Your task to perform on an android device: open chrome privacy settings Image 0: 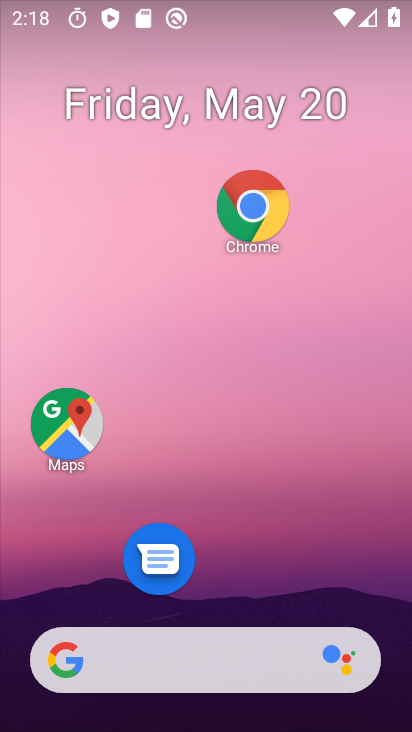
Step 0: click (267, 219)
Your task to perform on an android device: open chrome privacy settings Image 1: 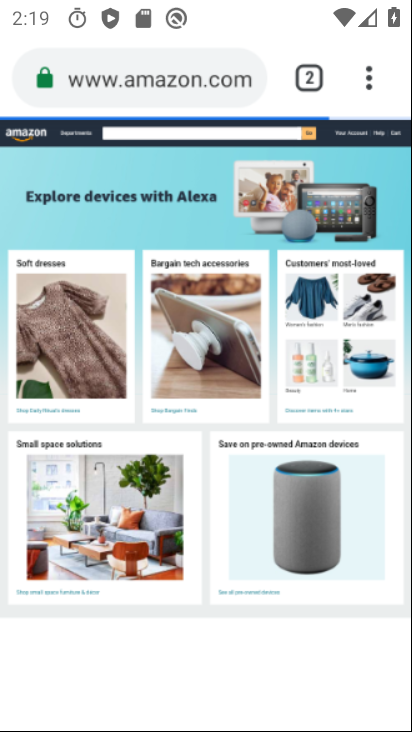
Step 1: click (367, 87)
Your task to perform on an android device: open chrome privacy settings Image 2: 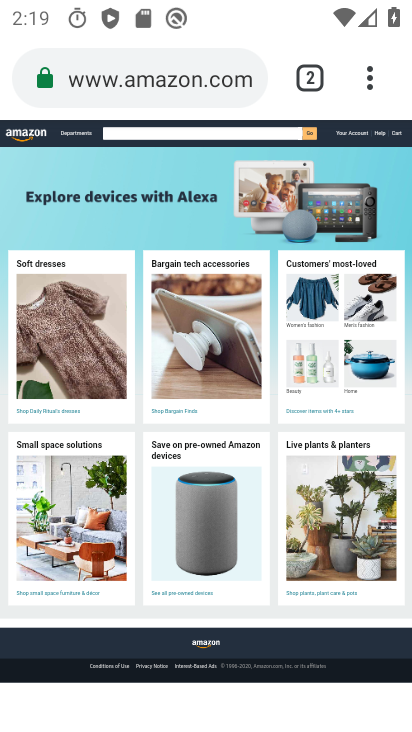
Step 2: click (367, 87)
Your task to perform on an android device: open chrome privacy settings Image 3: 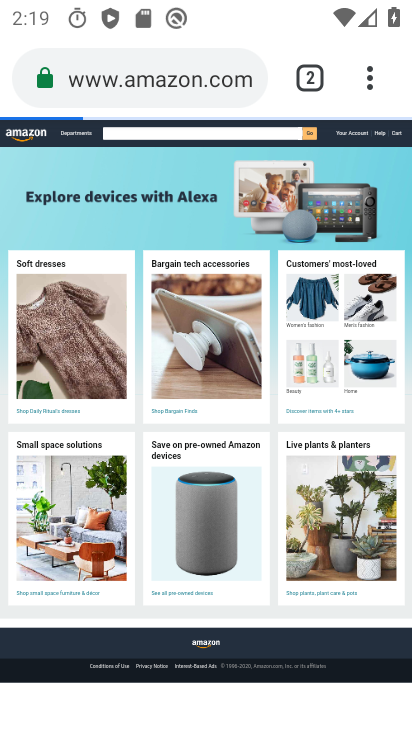
Step 3: click (367, 85)
Your task to perform on an android device: open chrome privacy settings Image 4: 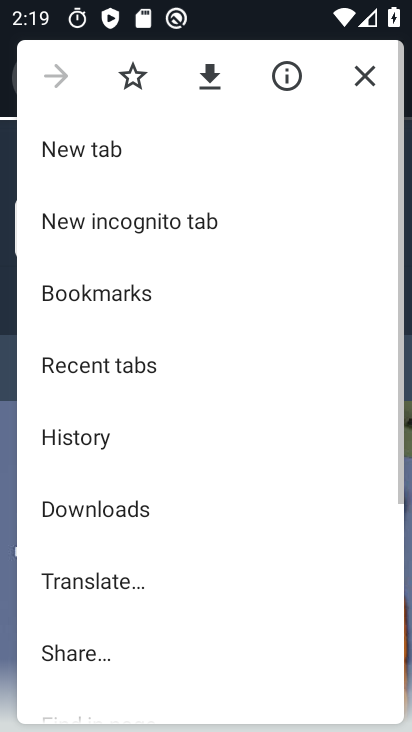
Step 4: drag from (201, 594) to (193, 130)
Your task to perform on an android device: open chrome privacy settings Image 5: 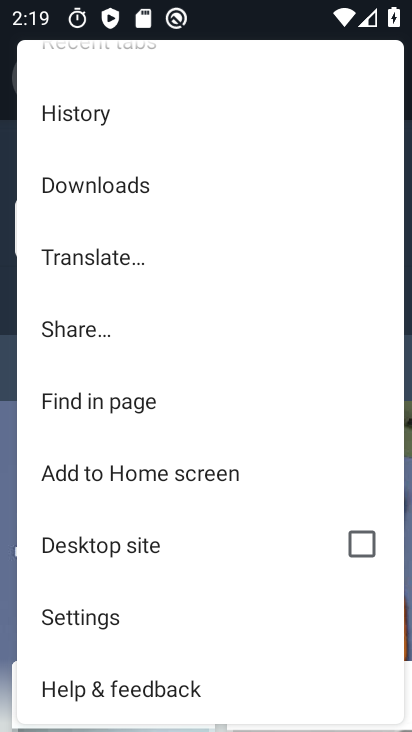
Step 5: click (94, 611)
Your task to perform on an android device: open chrome privacy settings Image 6: 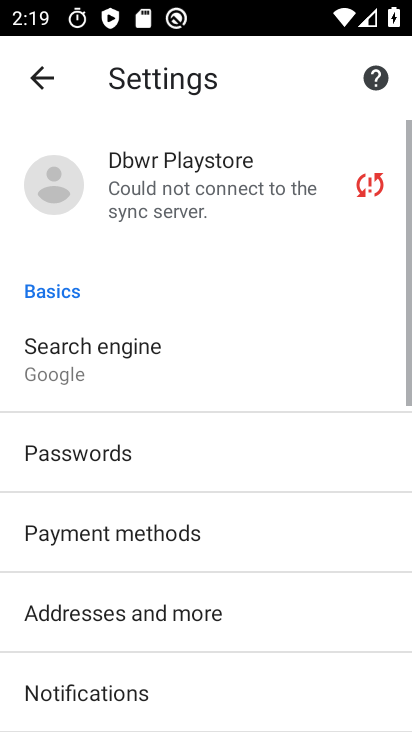
Step 6: drag from (96, 607) to (80, 139)
Your task to perform on an android device: open chrome privacy settings Image 7: 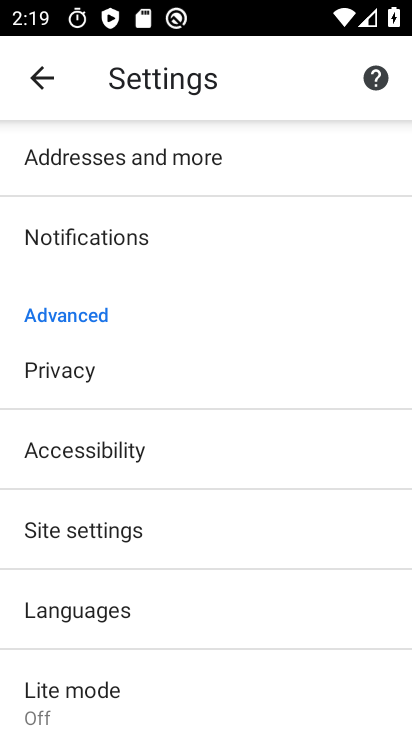
Step 7: click (61, 363)
Your task to perform on an android device: open chrome privacy settings Image 8: 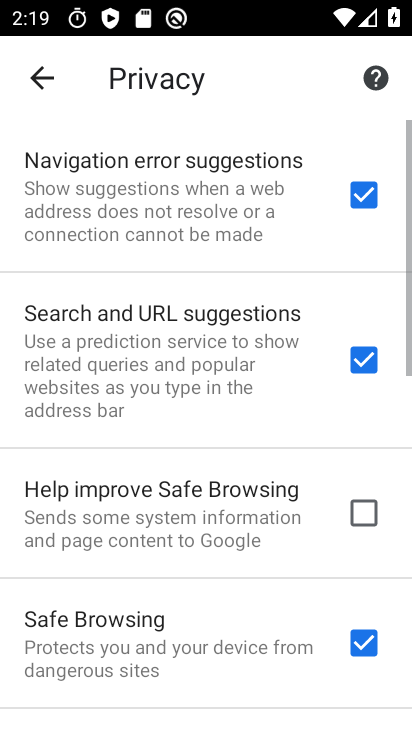
Step 8: task complete